Your task to perform on an android device: Do I have any events this weekend? Image 0: 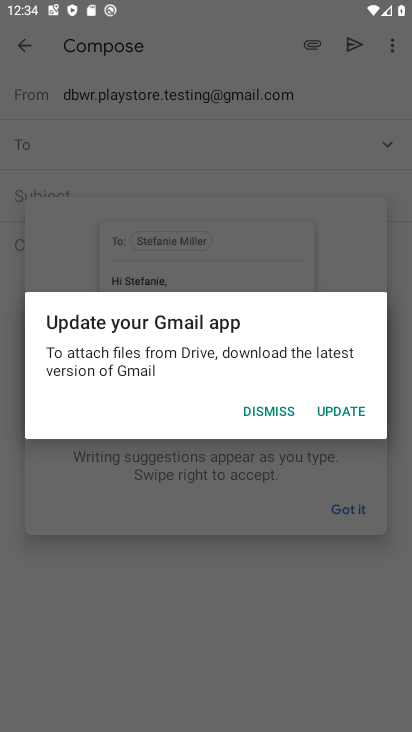
Step 0: press home button
Your task to perform on an android device: Do I have any events this weekend? Image 1: 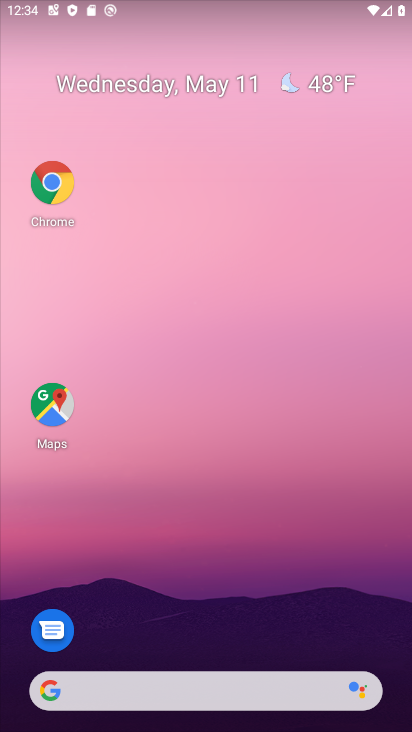
Step 1: drag from (213, 673) to (265, 37)
Your task to perform on an android device: Do I have any events this weekend? Image 2: 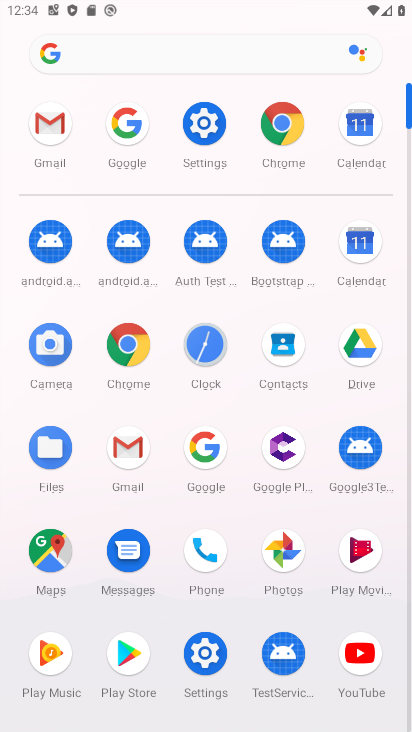
Step 2: click (359, 236)
Your task to perform on an android device: Do I have any events this weekend? Image 3: 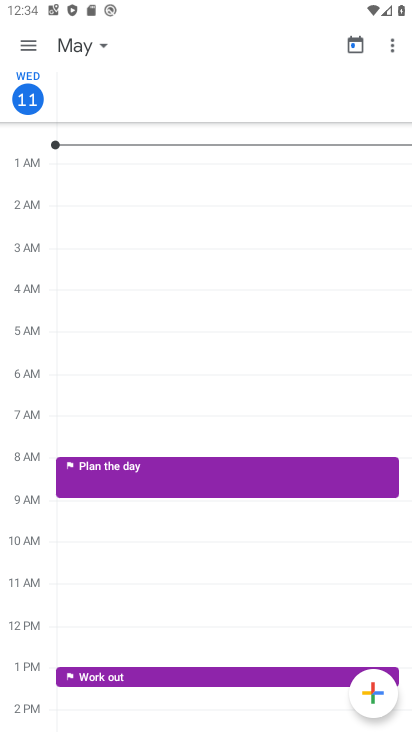
Step 3: click (32, 45)
Your task to perform on an android device: Do I have any events this weekend? Image 4: 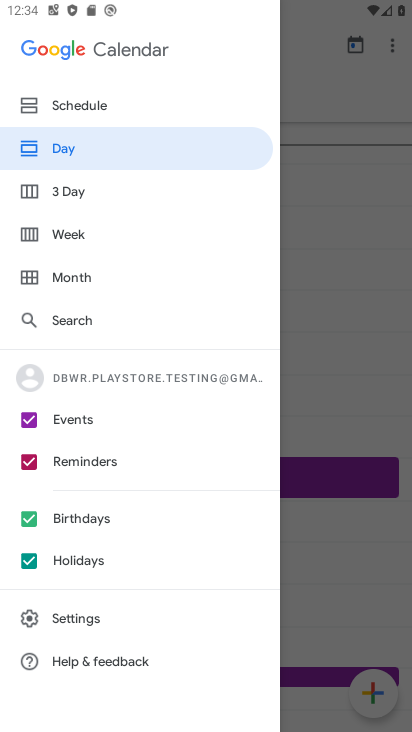
Step 4: click (95, 228)
Your task to perform on an android device: Do I have any events this weekend? Image 5: 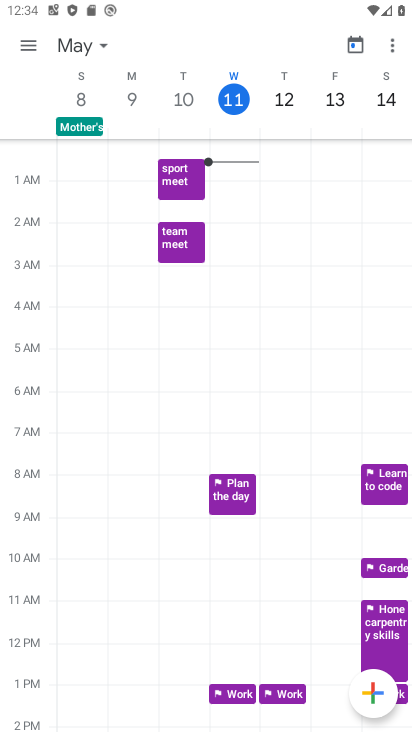
Step 5: task complete